Your task to perform on an android device: Go to display settings Image 0: 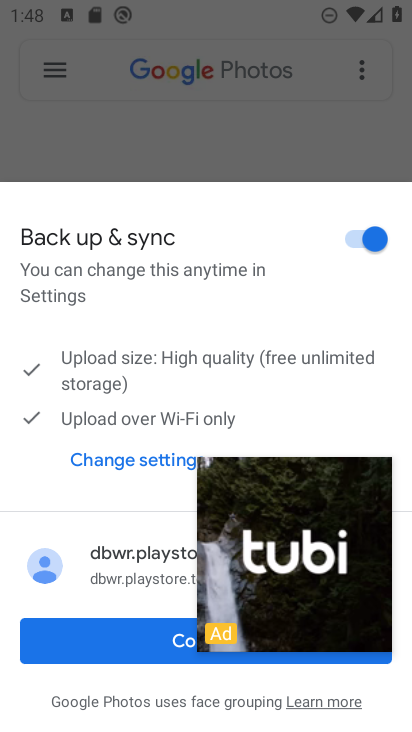
Step 0: press home button
Your task to perform on an android device: Go to display settings Image 1: 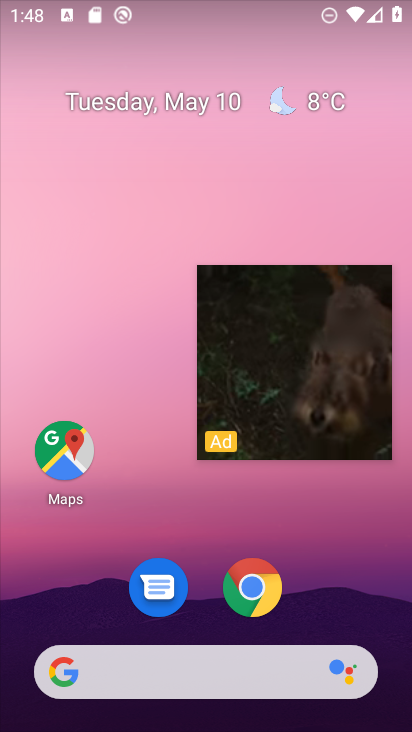
Step 1: drag from (404, 678) to (358, 213)
Your task to perform on an android device: Go to display settings Image 2: 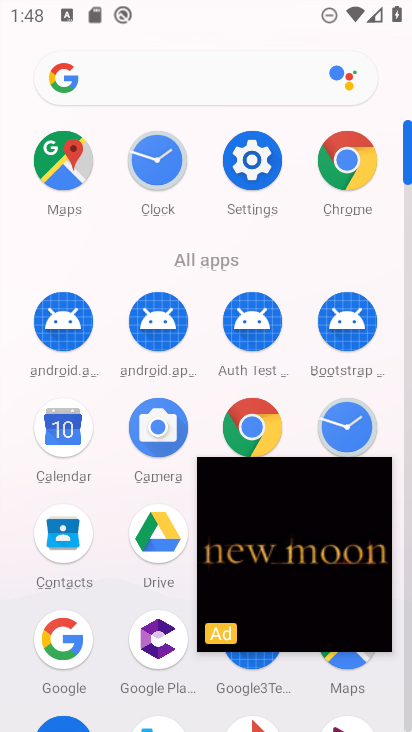
Step 2: click (244, 166)
Your task to perform on an android device: Go to display settings Image 3: 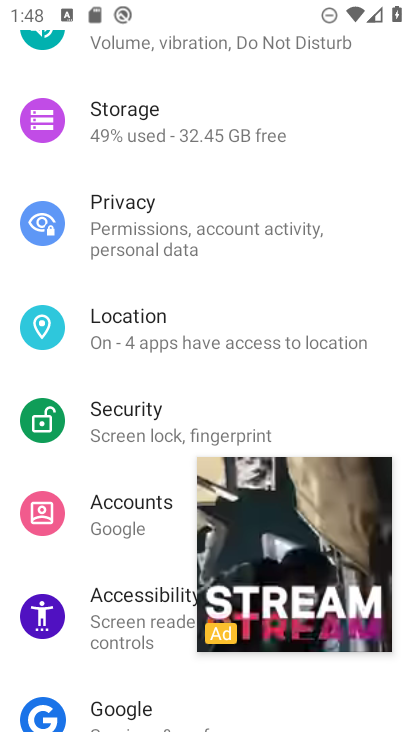
Step 3: drag from (355, 78) to (411, 399)
Your task to perform on an android device: Go to display settings Image 4: 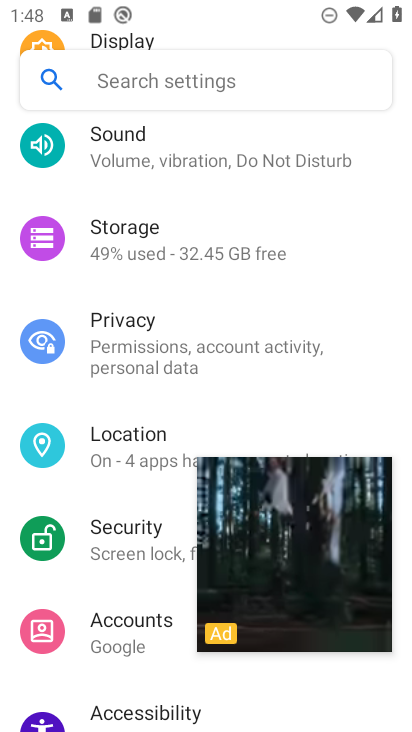
Step 4: drag from (398, 207) to (411, 388)
Your task to perform on an android device: Go to display settings Image 5: 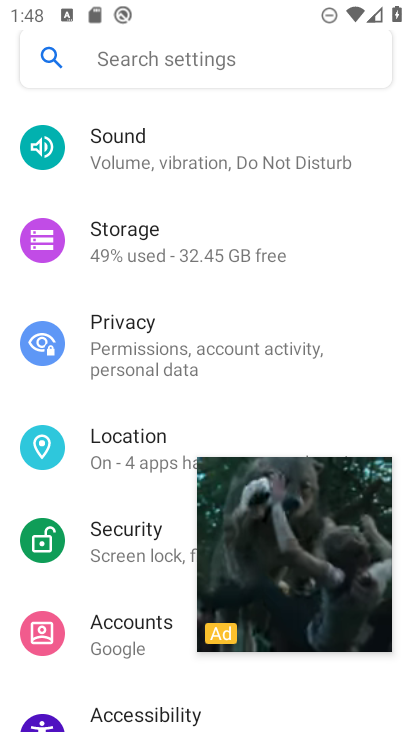
Step 5: drag from (391, 128) to (387, 337)
Your task to perform on an android device: Go to display settings Image 6: 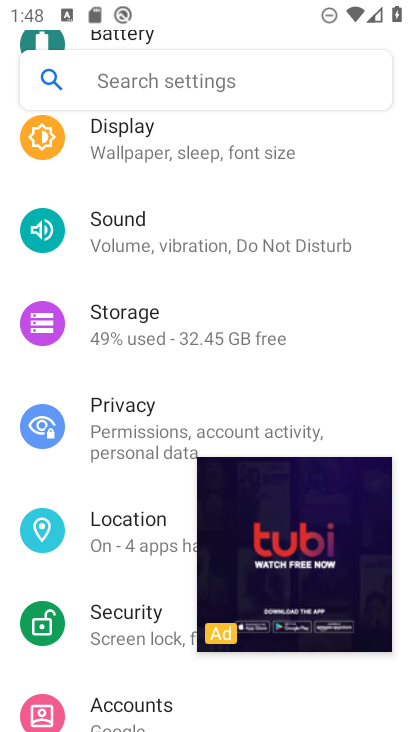
Step 6: drag from (394, 144) to (404, 372)
Your task to perform on an android device: Go to display settings Image 7: 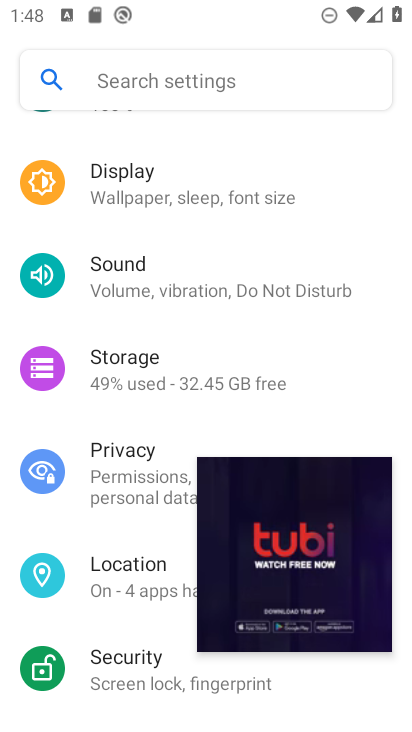
Step 7: click (180, 178)
Your task to perform on an android device: Go to display settings Image 8: 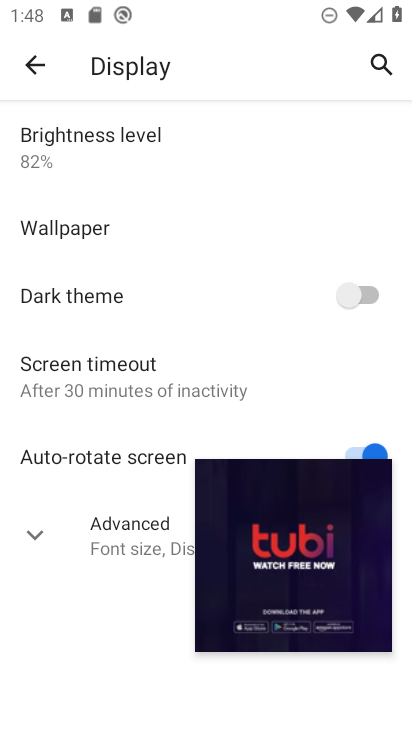
Step 8: task complete